Your task to perform on an android device: Clear the cart on target.com. Search for "logitech g933" on target.com, select the first entry, and add it to the cart. Image 0: 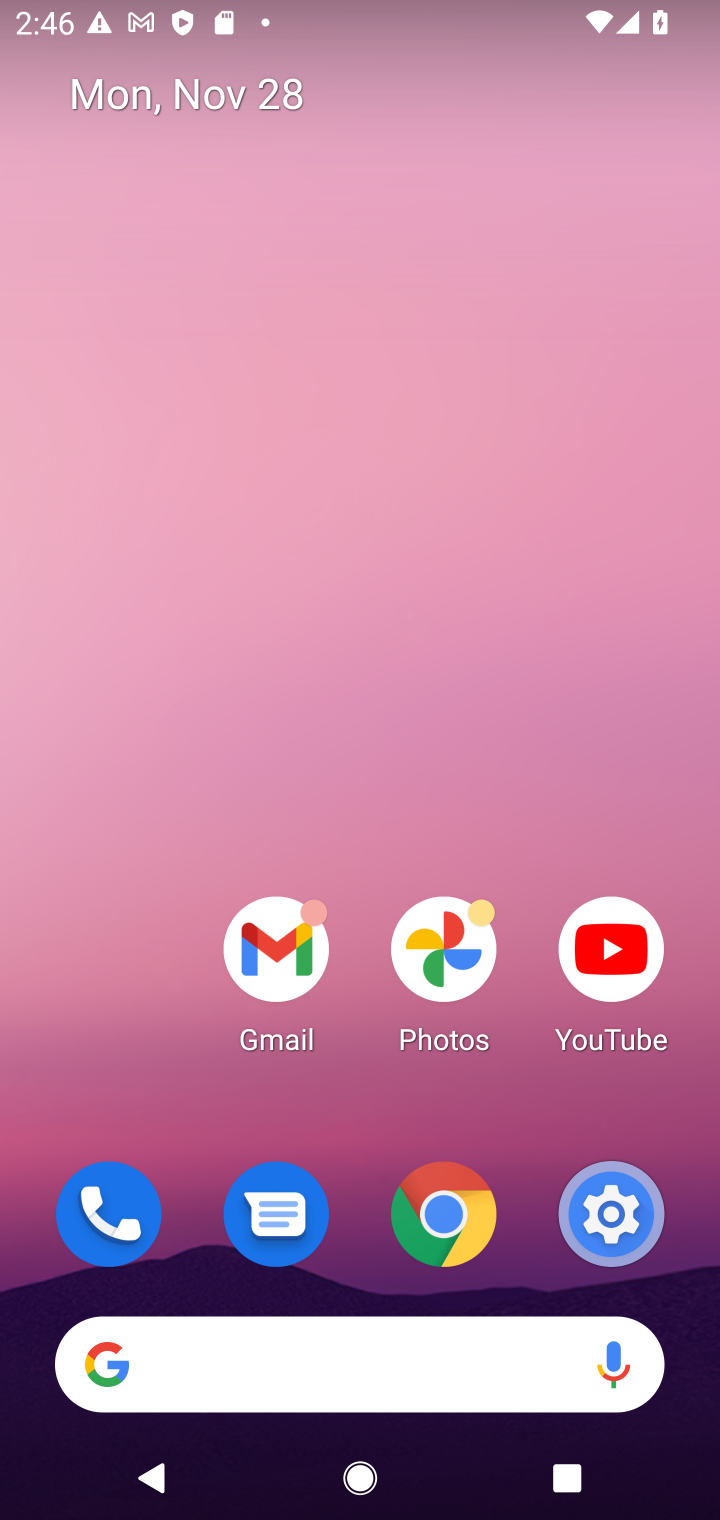
Step 0: click (286, 1349)
Your task to perform on an android device: Clear the cart on target.com. Search for "logitech g933" on target.com, select the first entry, and add it to the cart. Image 1: 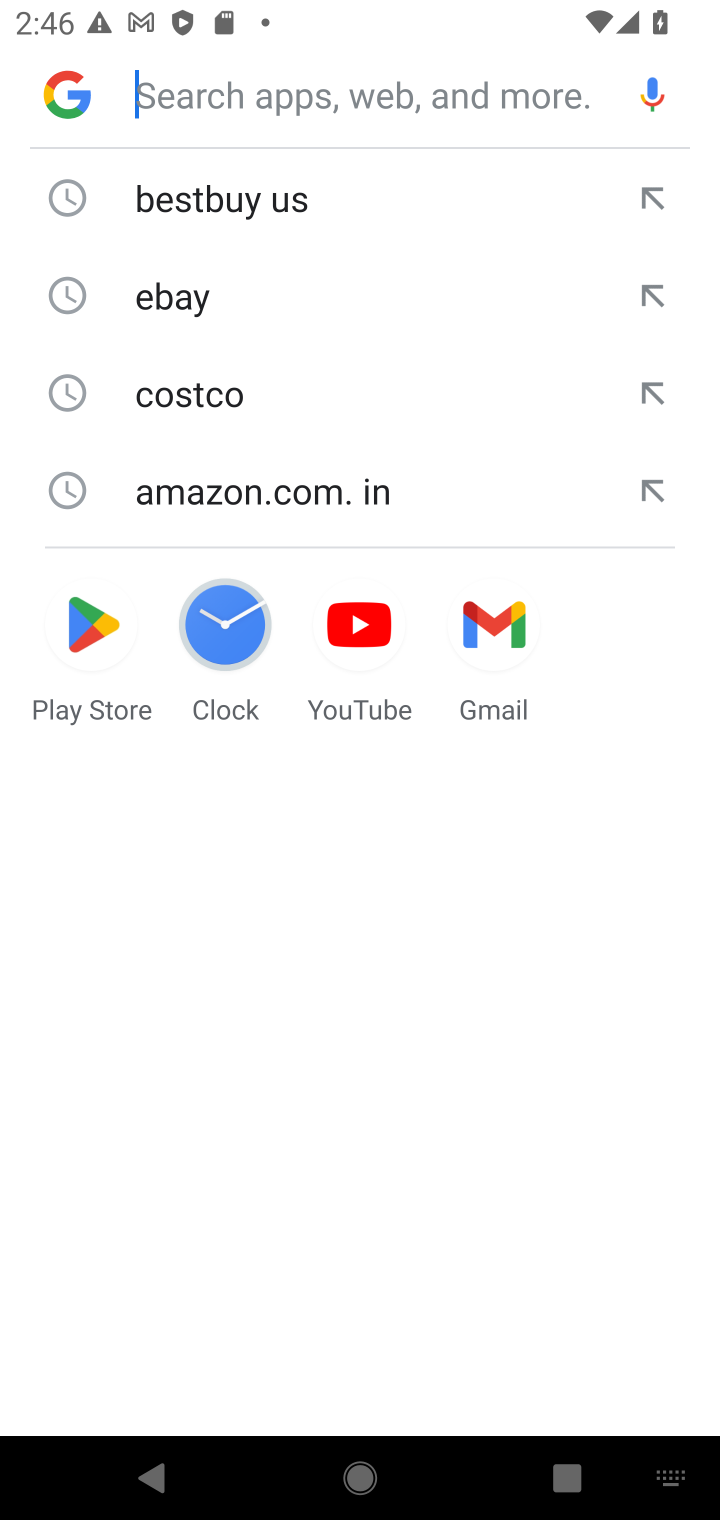
Step 1: type "target"
Your task to perform on an android device: Clear the cart on target.com. Search for "logitech g933" on target.com, select the first entry, and add it to the cart. Image 2: 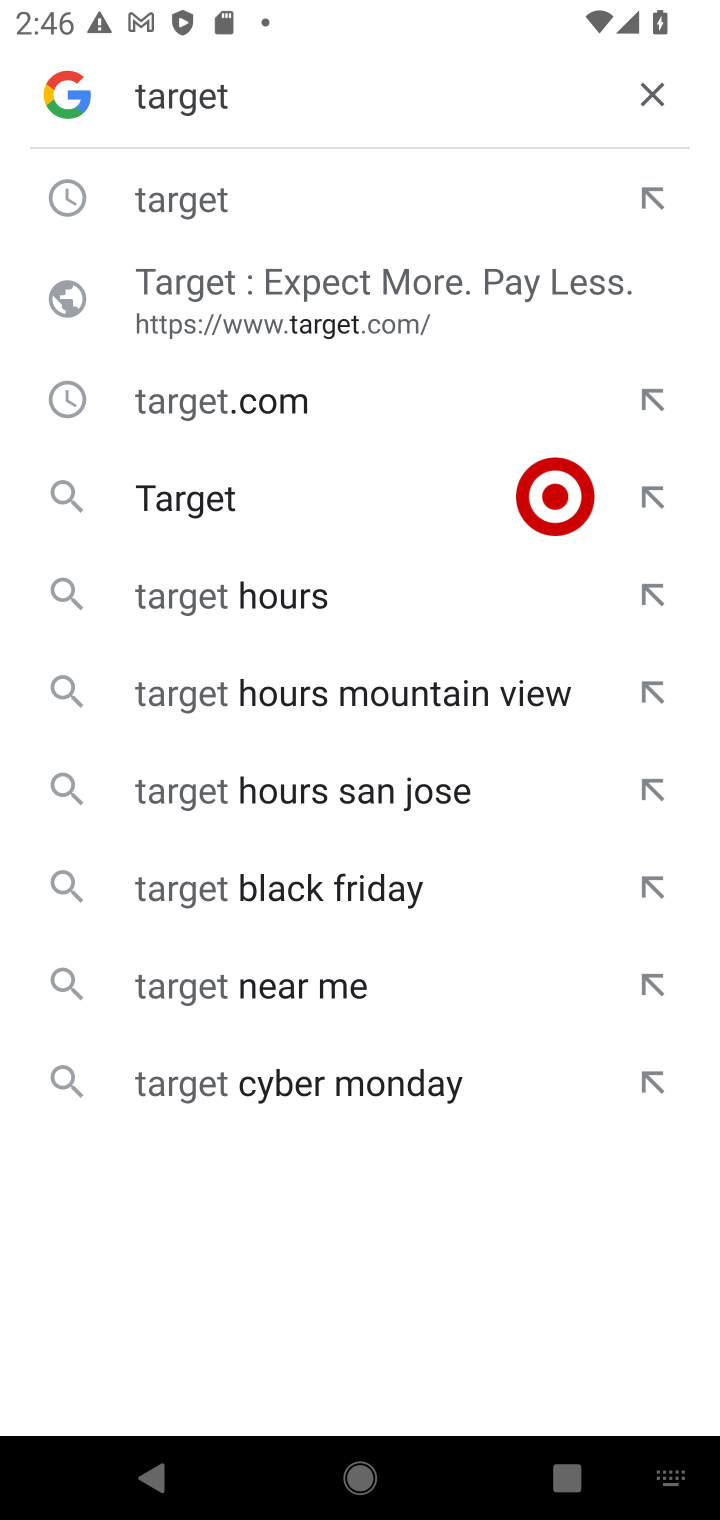
Step 2: click (246, 235)
Your task to perform on an android device: Clear the cart on target.com. Search for "logitech g933" on target.com, select the first entry, and add it to the cart. Image 3: 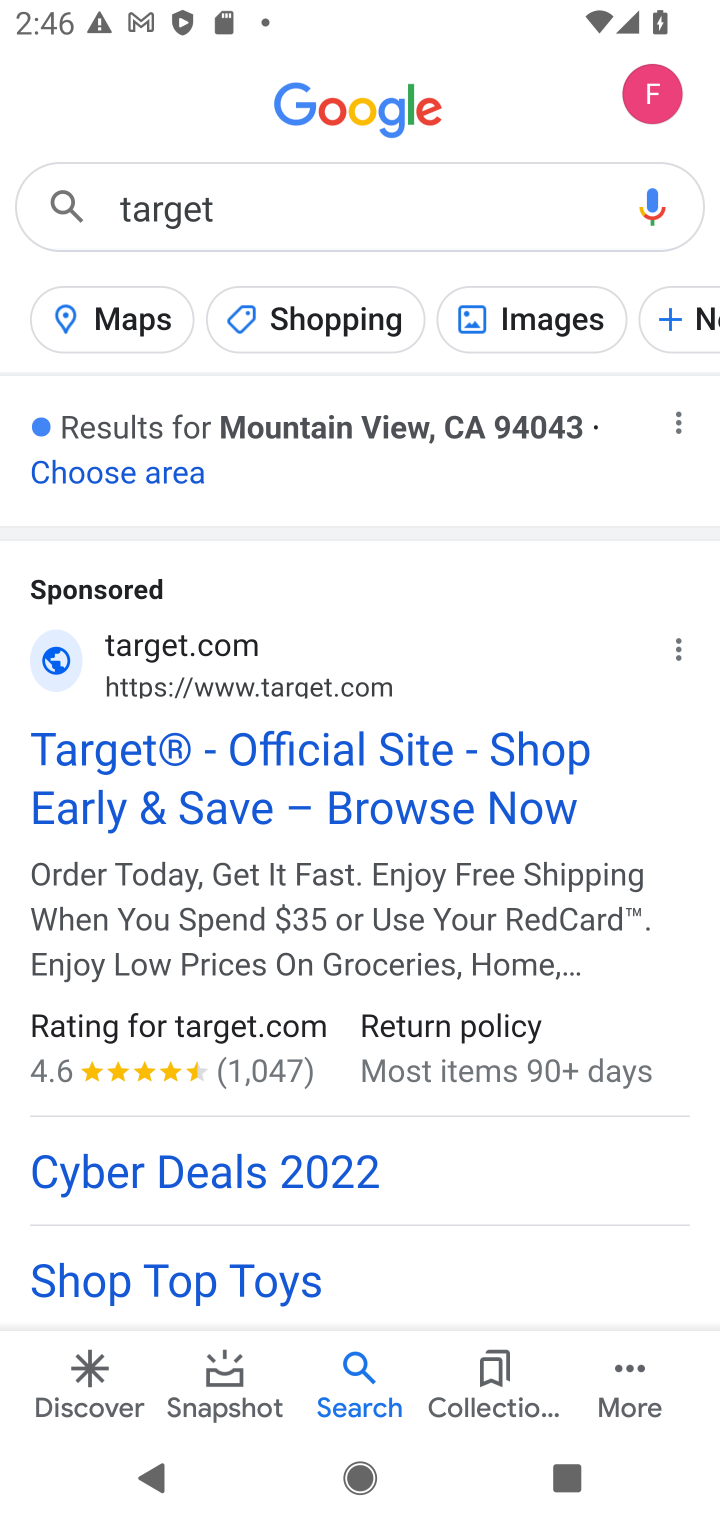
Step 3: click (190, 822)
Your task to perform on an android device: Clear the cart on target.com. Search for "logitech g933" on target.com, select the first entry, and add it to the cart. Image 4: 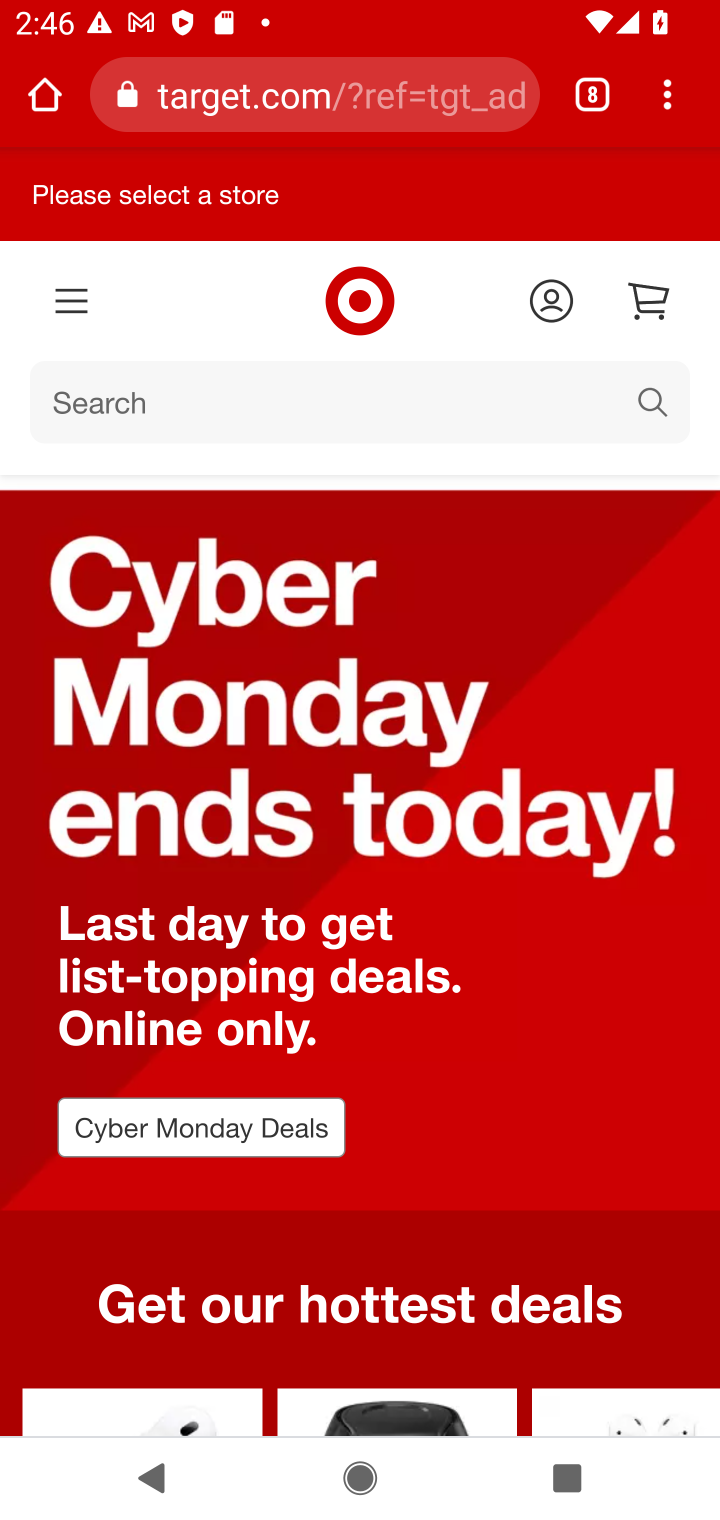
Step 4: task complete